Your task to perform on an android device: turn on airplane mode Image 0: 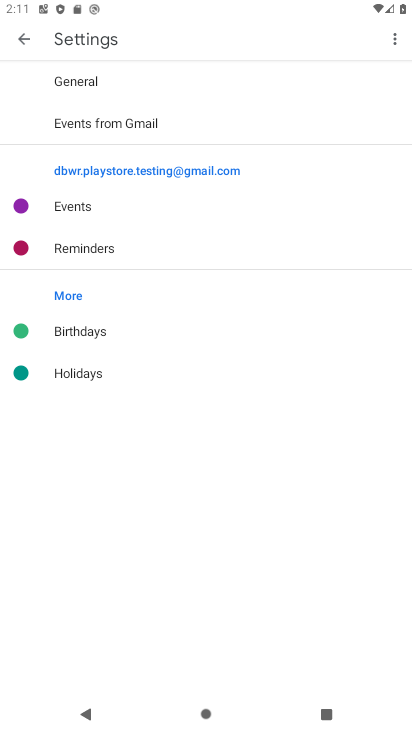
Step 0: press home button
Your task to perform on an android device: turn on airplane mode Image 1: 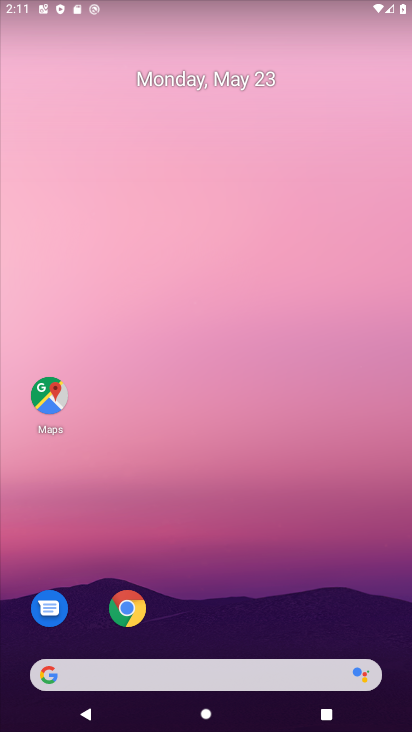
Step 1: drag from (181, 652) to (278, 38)
Your task to perform on an android device: turn on airplane mode Image 2: 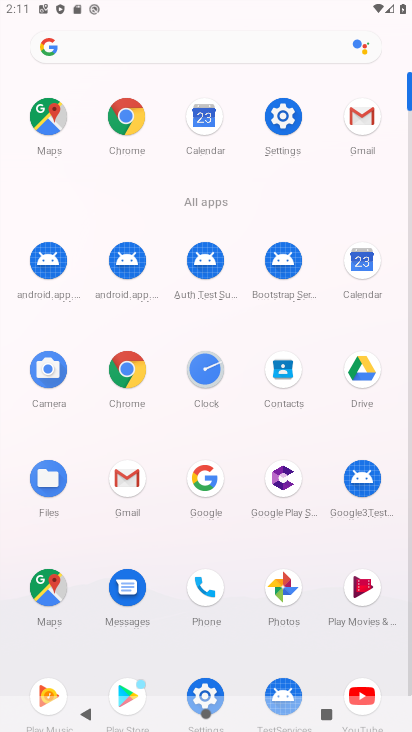
Step 2: click (271, 119)
Your task to perform on an android device: turn on airplane mode Image 3: 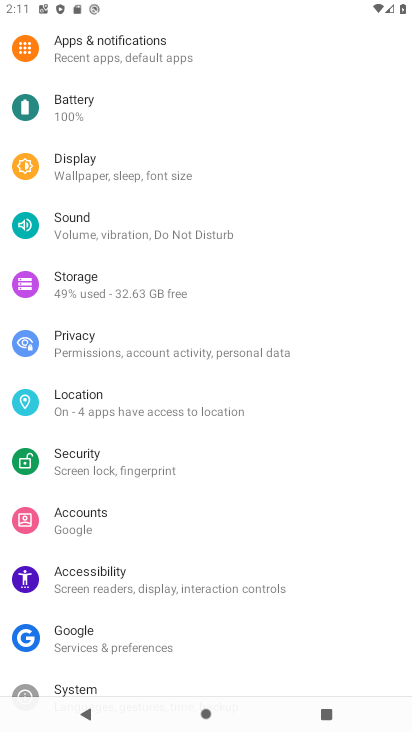
Step 3: drag from (73, 64) to (49, 439)
Your task to perform on an android device: turn on airplane mode Image 4: 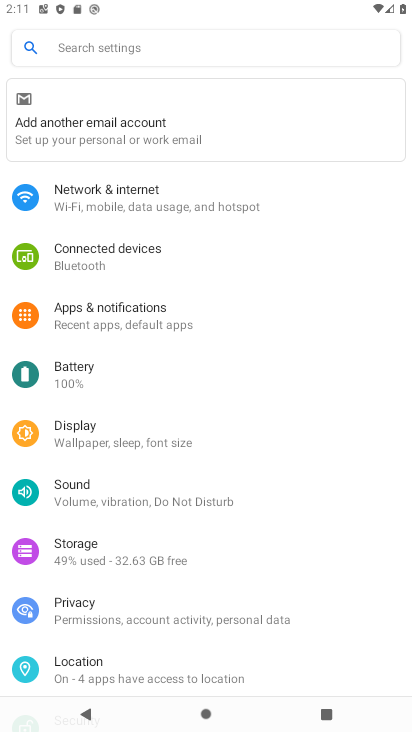
Step 4: click (123, 184)
Your task to perform on an android device: turn on airplane mode Image 5: 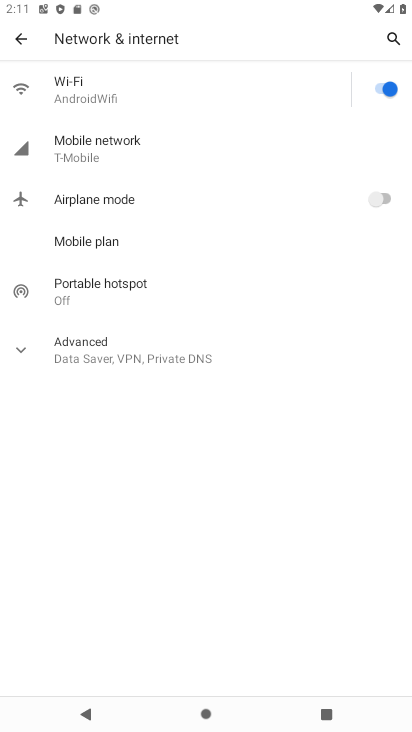
Step 5: click (382, 194)
Your task to perform on an android device: turn on airplane mode Image 6: 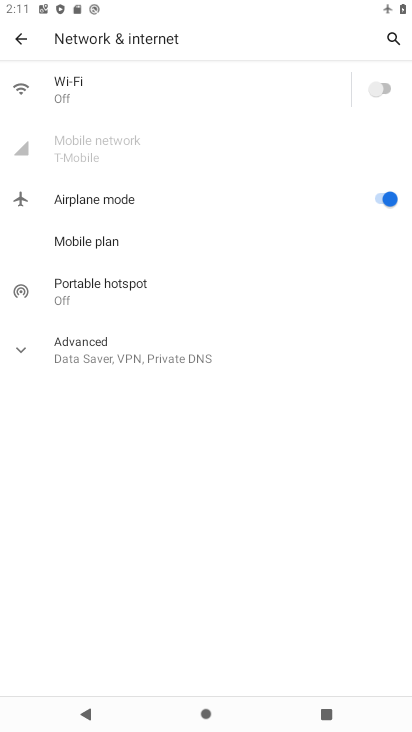
Step 6: task complete